Your task to perform on an android device: turn off improve location accuracy Image 0: 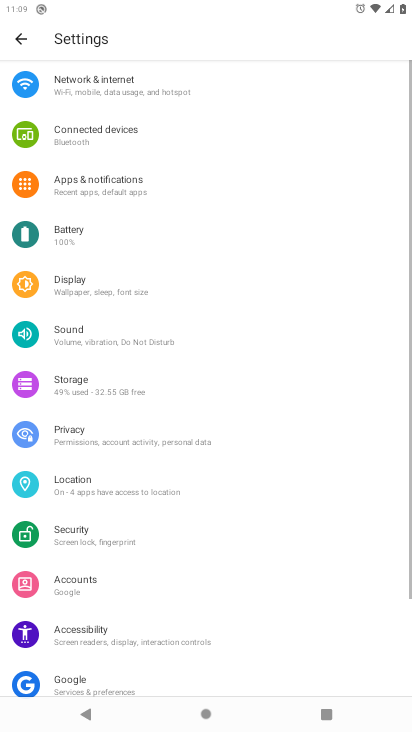
Step 0: press home button
Your task to perform on an android device: turn off improve location accuracy Image 1: 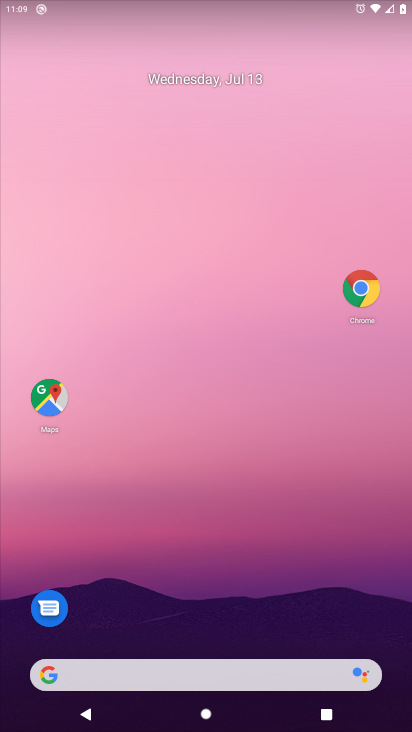
Step 1: drag from (232, 263) to (311, 37)
Your task to perform on an android device: turn off improve location accuracy Image 2: 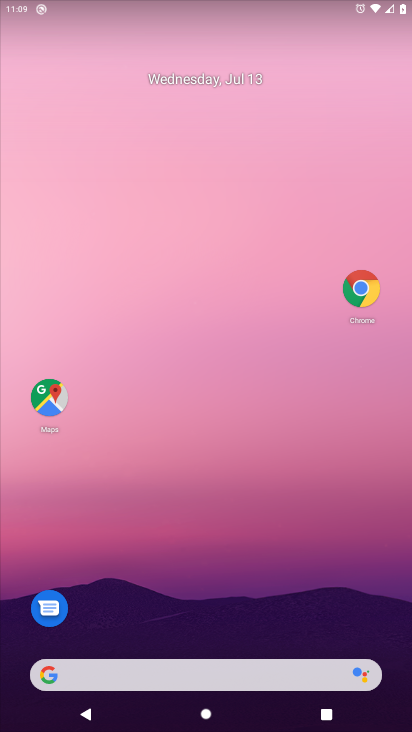
Step 2: drag from (20, 691) to (411, 311)
Your task to perform on an android device: turn off improve location accuracy Image 3: 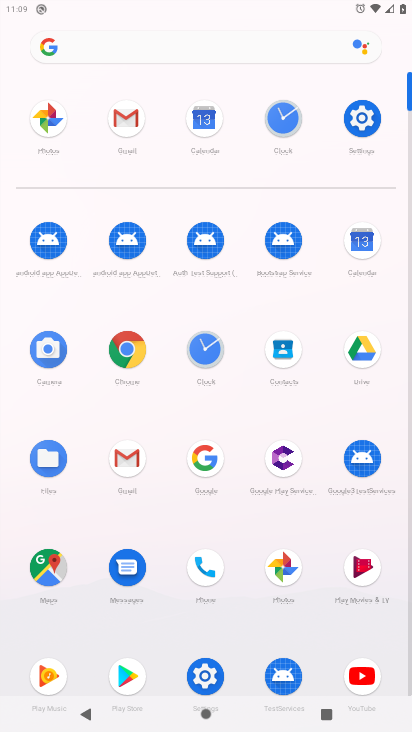
Step 3: click (214, 680)
Your task to perform on an android device: turn off improve location accuracy Image 4: 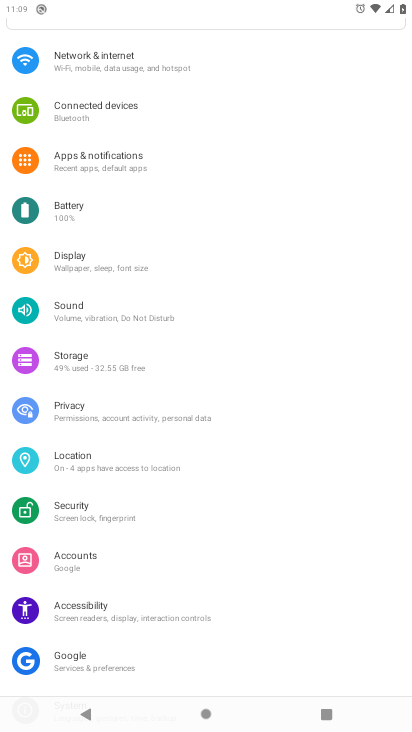
Step 4: click (96, 459)
Your task to perform on an android device: turn off improve location accuracy Image 5: 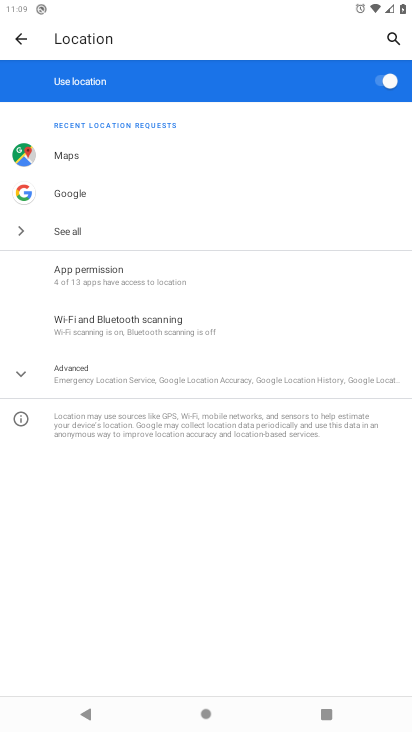
Step 5: click (105, 370)
Your task to perform on an android device: turn off improve location accuracy Image 6: 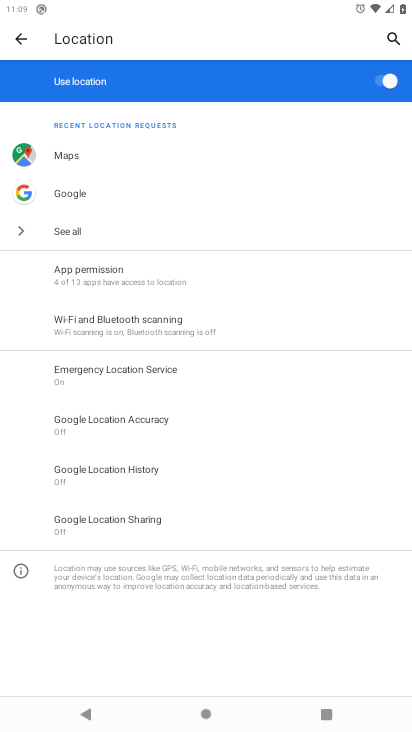
Step 6: click (125, 411)
Your task to perform on an android device: turn off improve location accuracy Image 7: 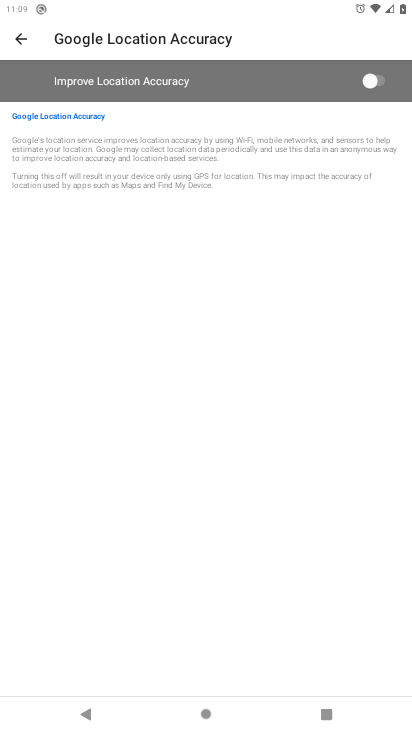
Step 7: task complete